Your task to perform on an android device: move an email to a new category in the gmail app Image 0: 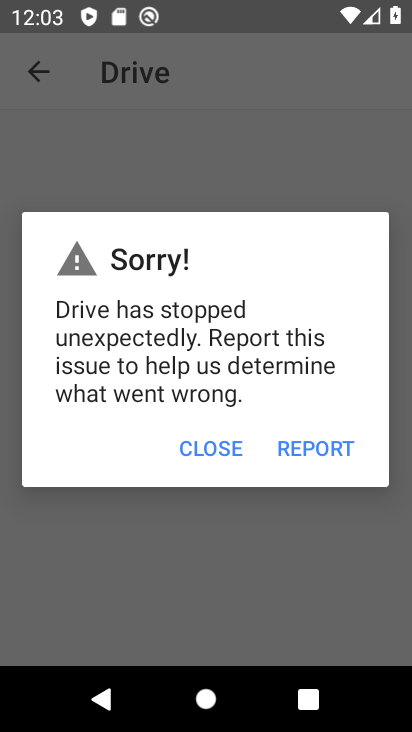
Step 0: click (199, 450)
Your task to perform on an android device: move an email to a new category in the gmail app Image 1: 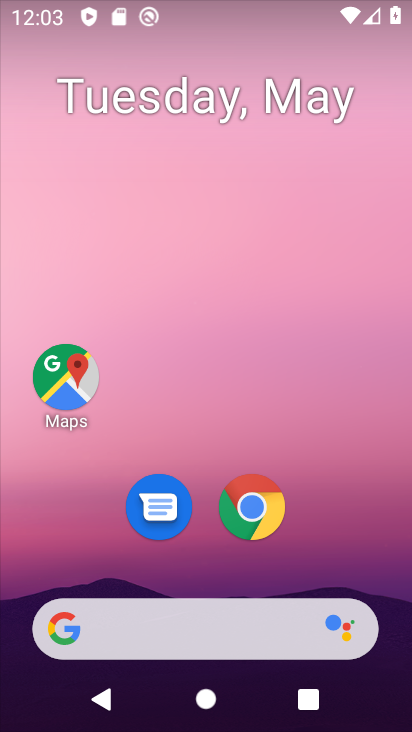
Step 1: drag from (219, 501) to (203, 224)
Your task to perform on an android device: move an email to a new category in the gmail app Image 2: 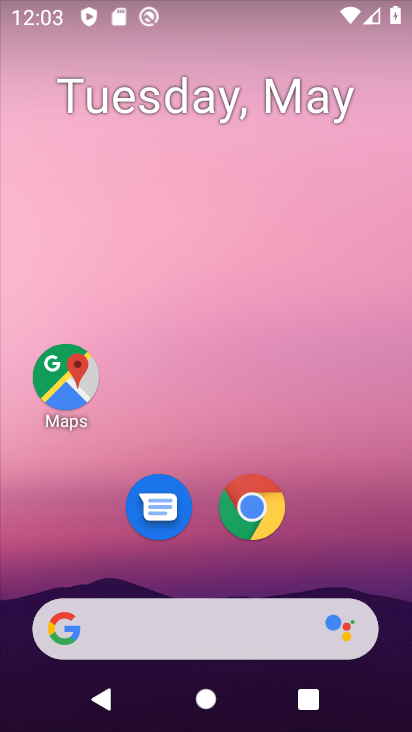
Step 2: drag from (223, 602) to (178, 155)
Your task to perform on an android device: move an email to a new category in the gmail app Image 3: 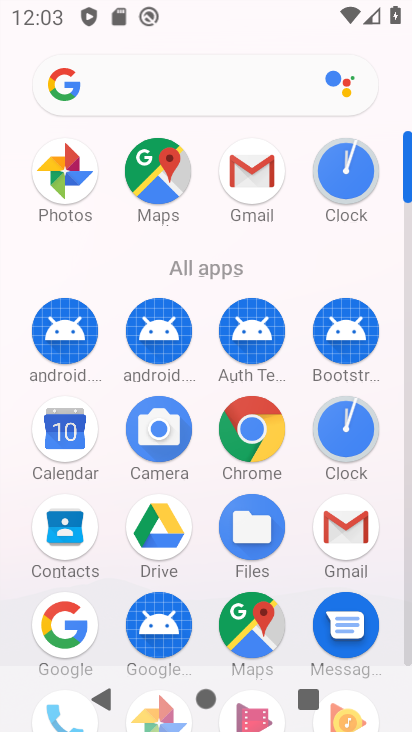
Step 3: click (242, 183)
Your task to perform on an android device: move an email to a new category in the gmail app Image 4: 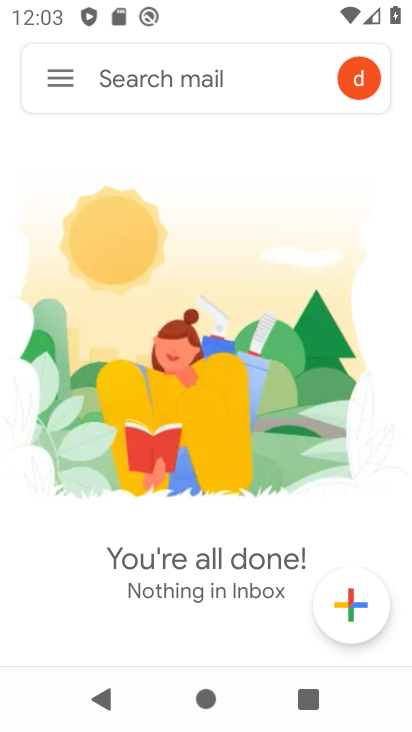
Step 4: click (55, 78)
Your task to perform on an android device: move an email to a new category in the gmail app Image 5: 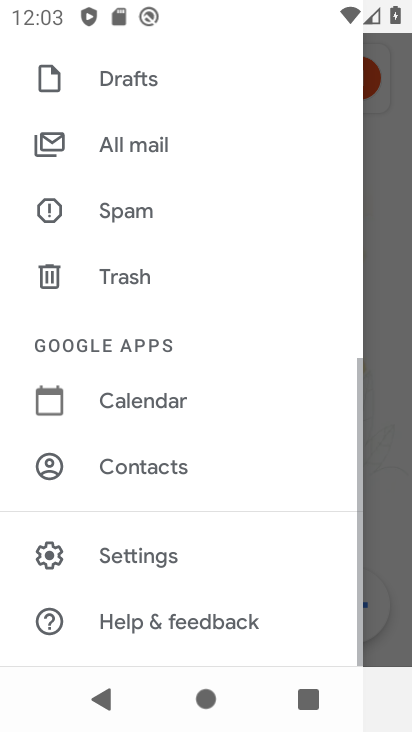
Step 5: drag from (123, 125) to (134, 541)
Your task to perform on an android device: move an email to a new category in the gmail app Image 6: 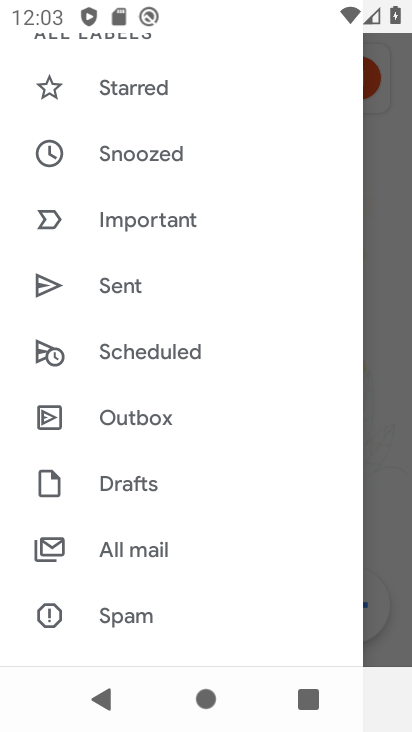
Step 6: drag from (122, 84) to (124, 474)
Your task to perform on an android device: move an email to a new category in the gmail app Image 7: 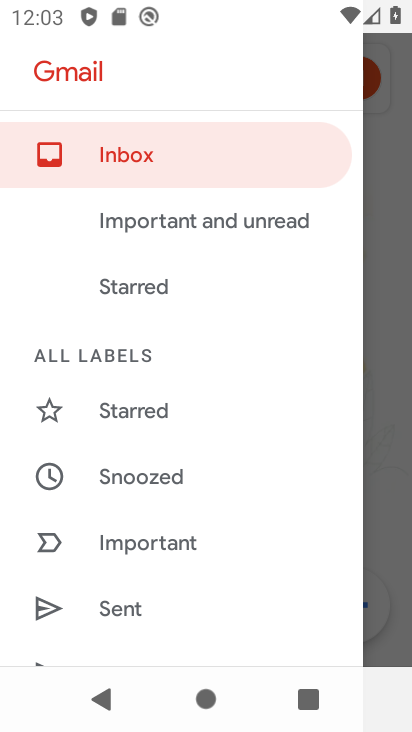
Step 7: click (114, 154)
Your task to perform on an android device: move an email to a new category in the gmail app Image 8: 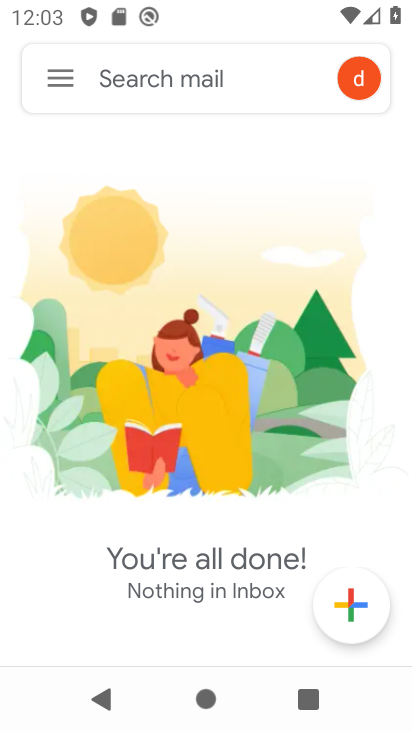
Step 8: task complete